Your task to perform on an android device: Find coffee shops on Maps Image 0: 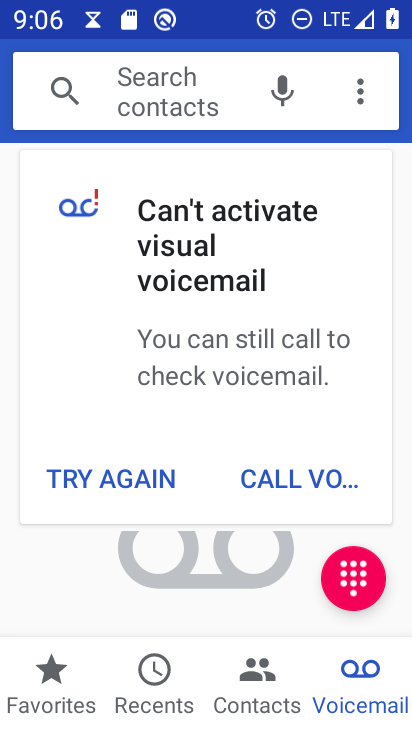
Step 0: press home button
Your task to perform on an android device: Find coffee shops on Maps Image 1: 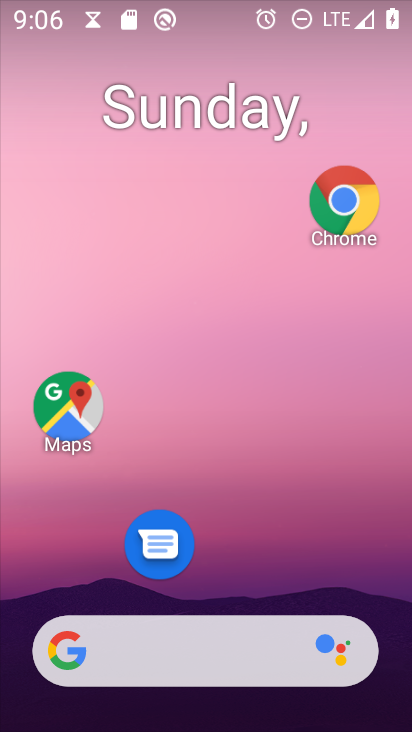
Step 1: drag from (287, 593) to (310, 104)
Your task to perform on an android device: Find coffee shops on Maps Image 2: 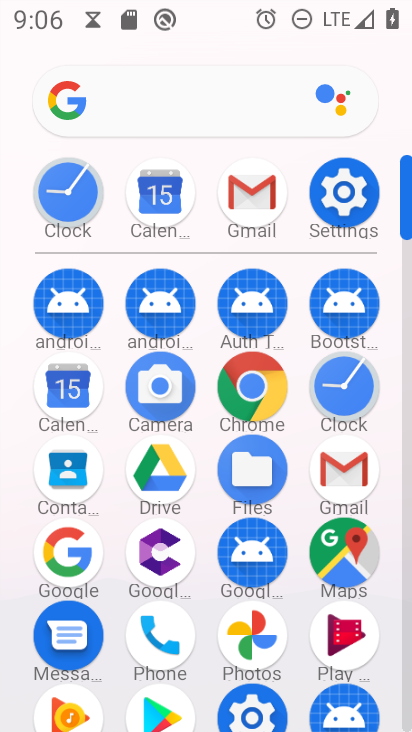
Step 2: click (336, 548)
Your task to perform on an android device: Find coffee shops on Maps Image 3: 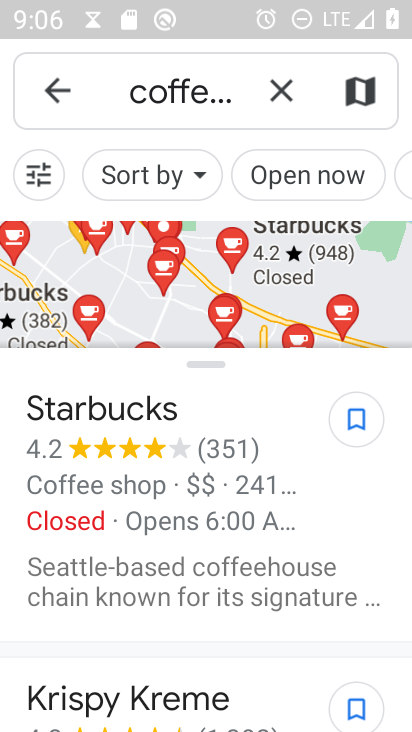
Step 3: task complete